Your task to perform on an android device: Search for sushi restaurants on Maps Image 0: 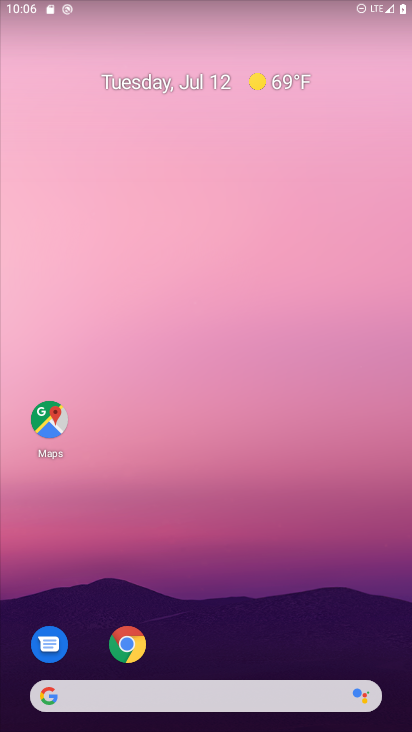
Step 0: click (48, 414)
Your task to perform on an android device: Search for sushi restaurants on Maps Image 1: 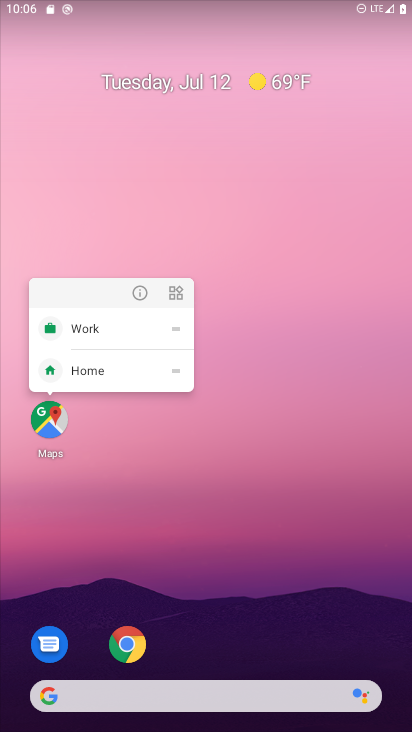
Step 1: click (46, 410)
Your task to perform on an android device: Search for sushi restaurants on Maps Image 2: 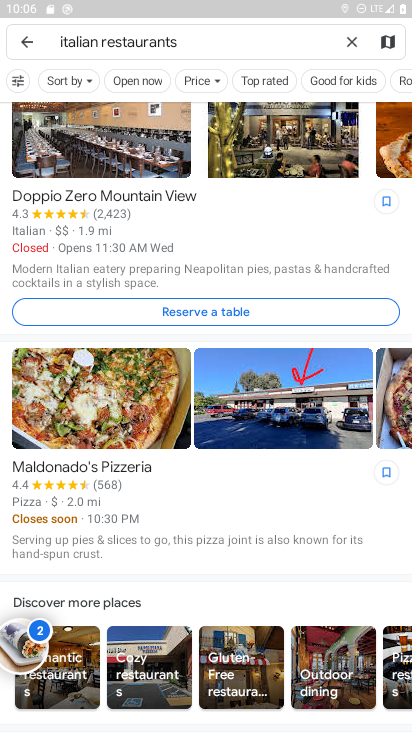
Step 2: click (347, 41)
Your task to perform on an android device: Search for sushi restaurants on Maps Image 3: 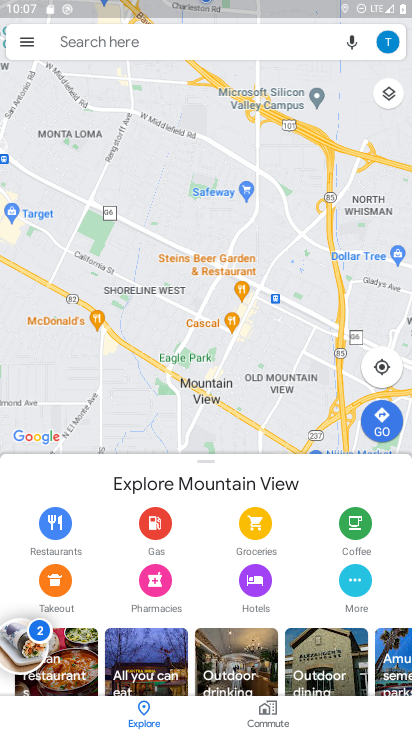
Step 3: click (96, 34)
Your task to perform on an android device: Search for sushi restaurants on Maps Image 4: 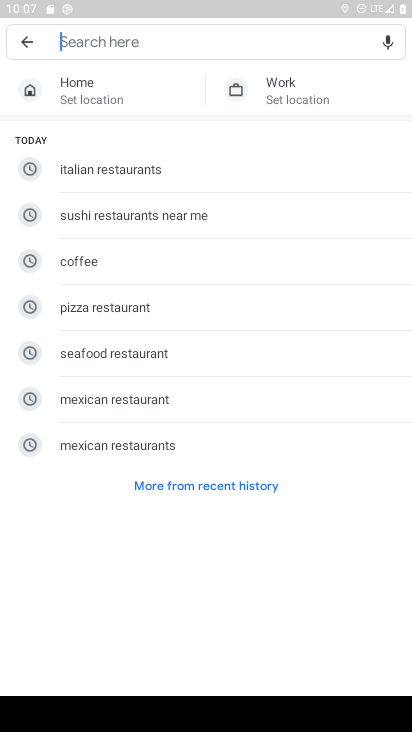
Step 4: click (103, 220)
Your task to perform on an android device: Search for sushi restaurants on Maps Image 5: 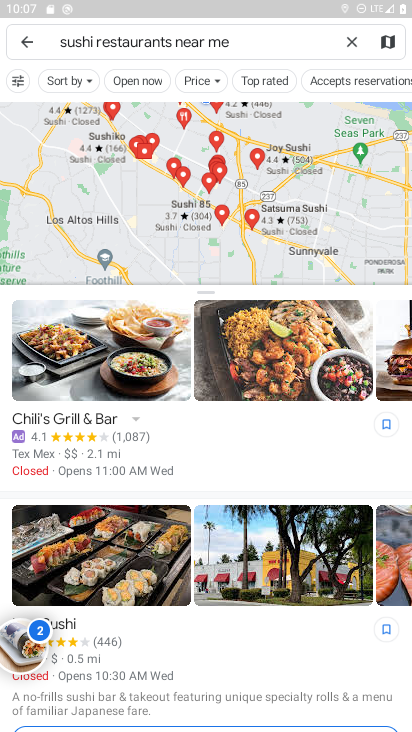
Step 5: task complete